Your task to perform on an android device: turn off location history Image 0: 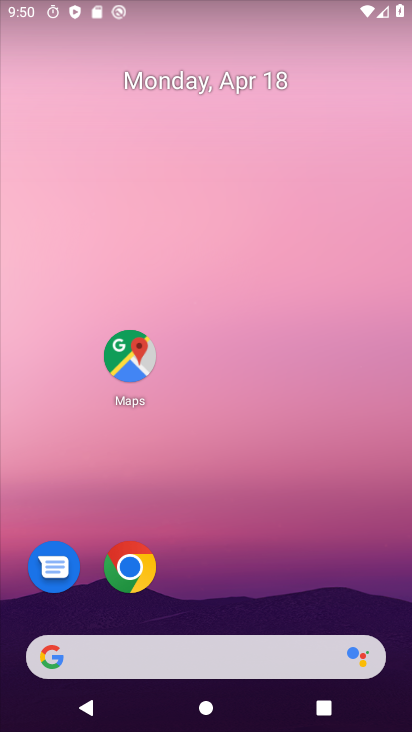
Step 0: drag from (280, 667) to (398, 113)
Your task to perform on an android device: turn off location history Image 1: 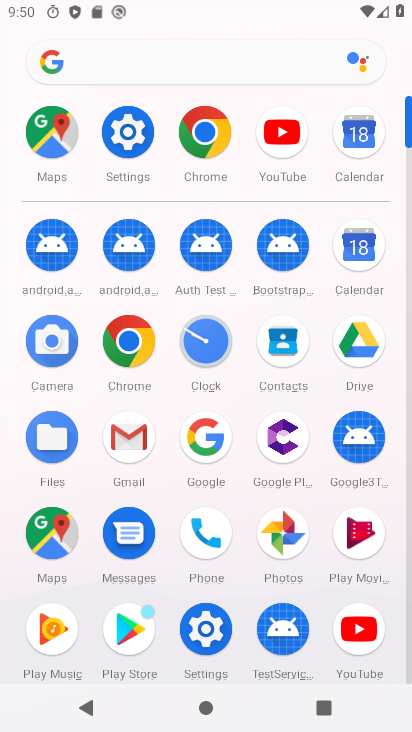
Step 1: click (204, 613)
Your task to perform on an android device: turn off location history Image 2: 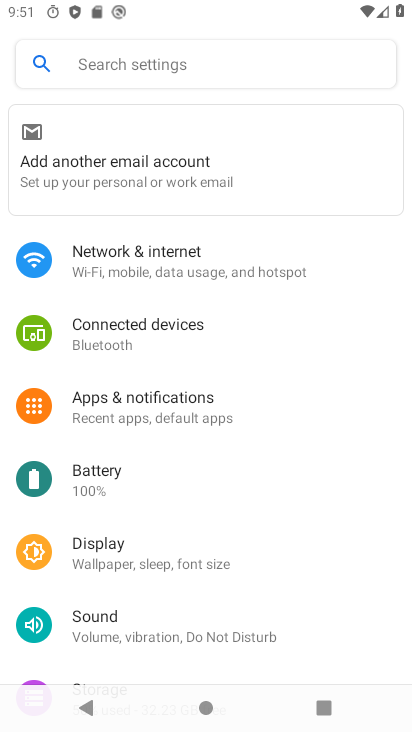
Step 2: click (170, 70)
Your task to perform on an android device: turn off location history Image 3: 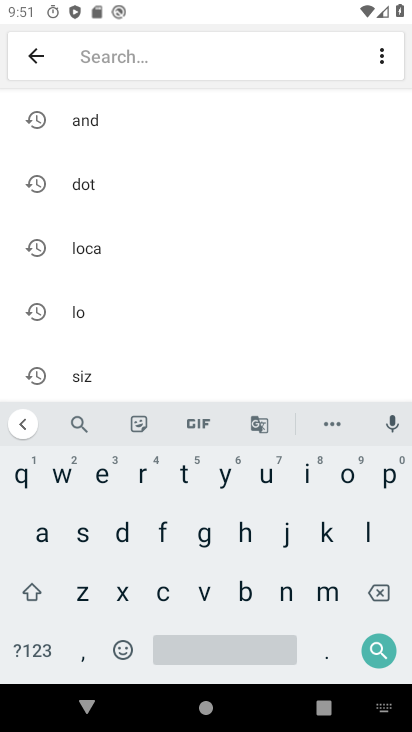
Step 3: click (374, 527)
Your task to perform on an android device: turn off location history Image 4: 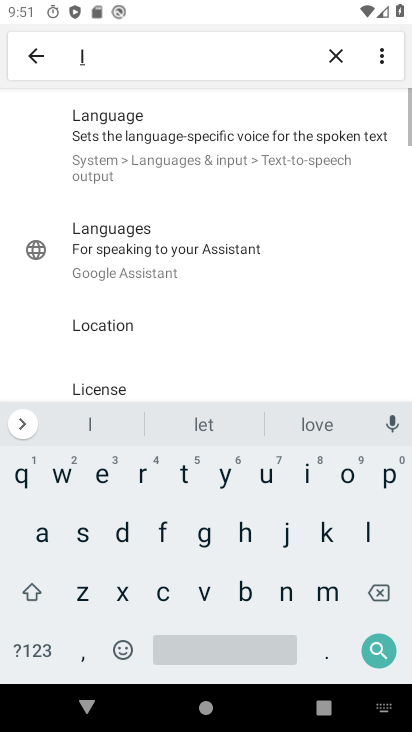
Step 4: click (345, 477)
Your task to perform on an android device: turn off location history Image 5: 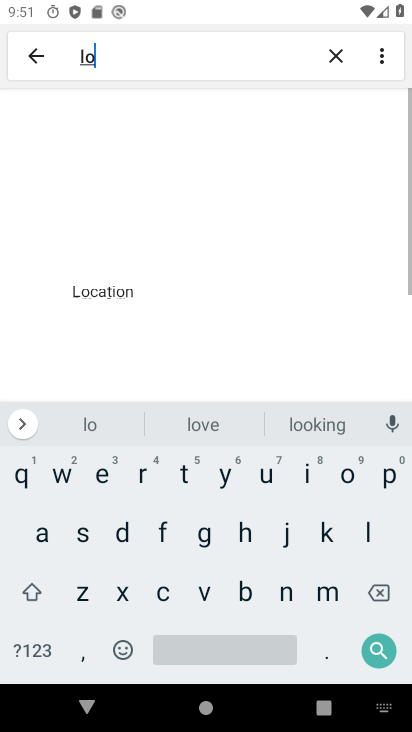
Step 5: click (167, 590)
Your task to perform on an android device: turn off location history Image 6: 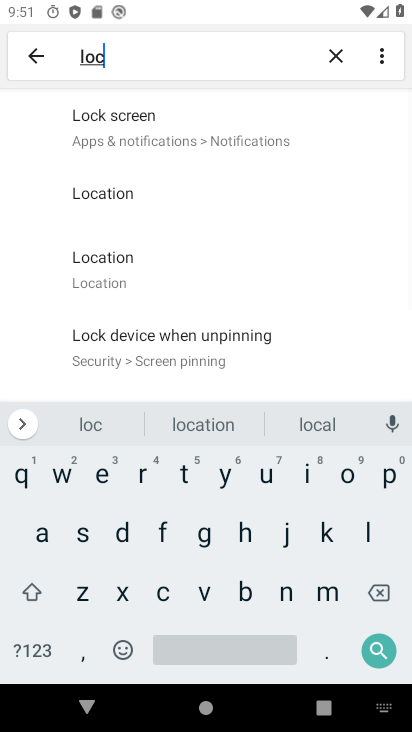
Step 6: click (127, 266)
Your task to perform on an android device: turn off location history Image 7: 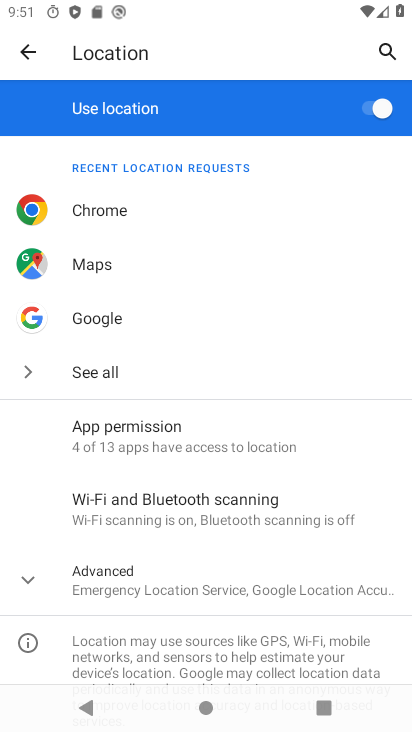
Step 7: click (93, 561)
Your task to perform on an android device: turn off location history Image 8: 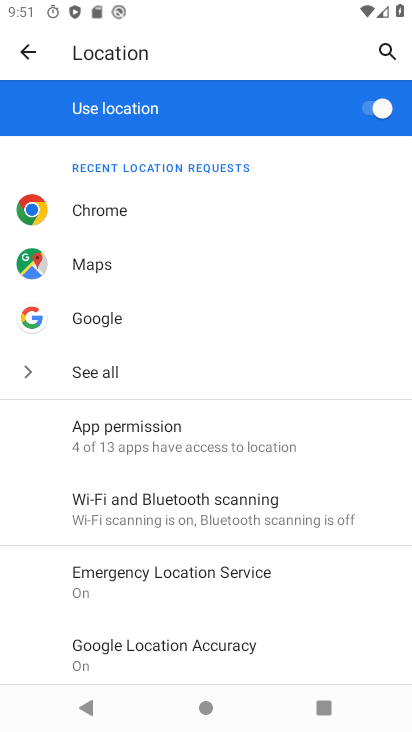
Step 8: drag from (181, 620) to (297, 392)
Your task to perform on an android device: turn off location history Image 9: 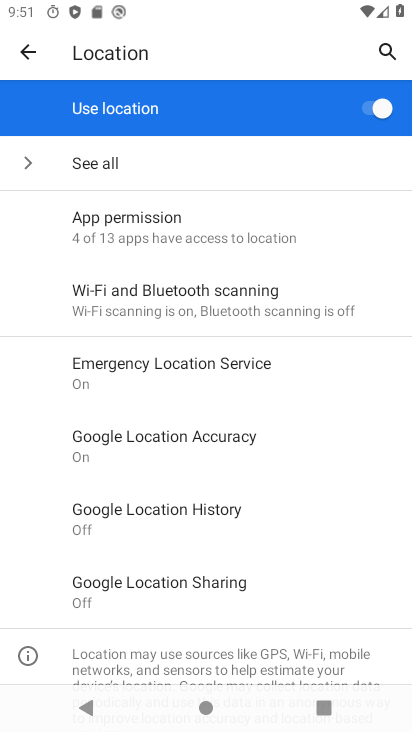
Step 9: click (182, 526)
Your task to perform on an android device: turn off location history Image 10: 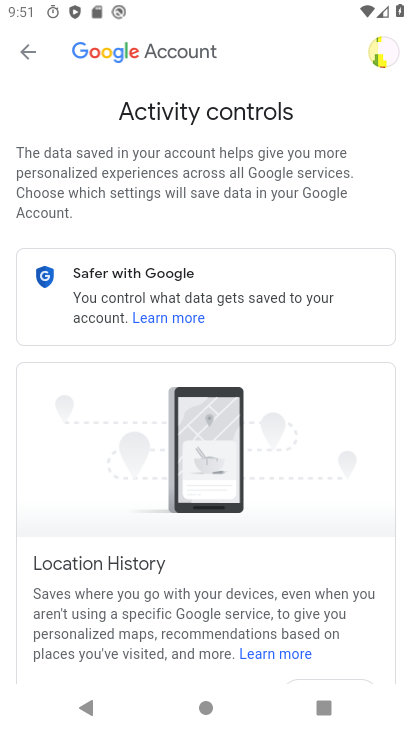
Step 10: drag from (190, 526) to (204, 291)
Your task to perform on an android device: turn off location history Image 11: 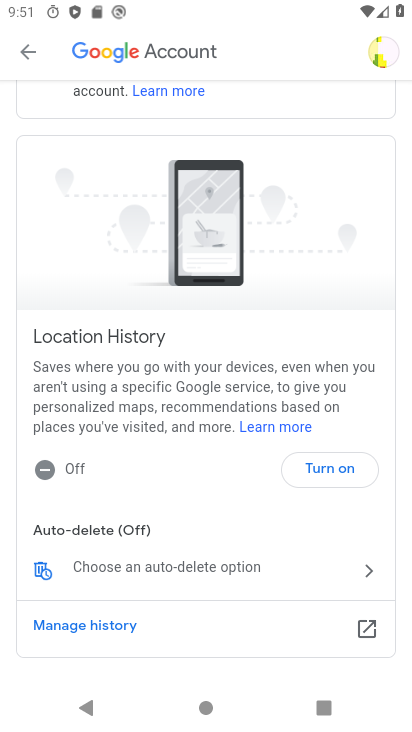
Step 11: click (52, 474)
Your task to perform on an android device: turn off location history Image 12: 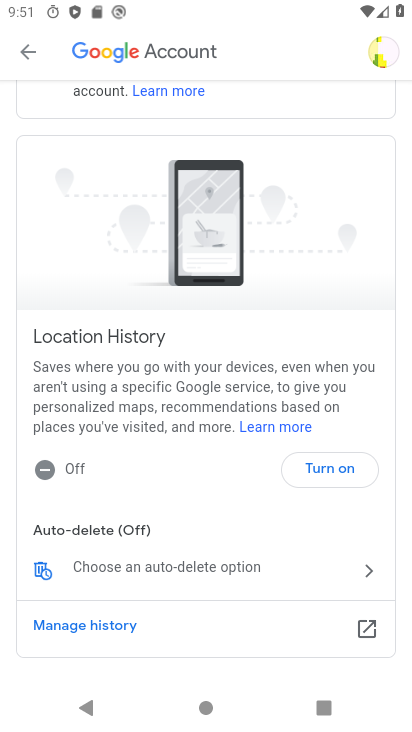
Step 12: task complete